Your task to perform on an android device: see sites visited before in the chrome app Image 0: 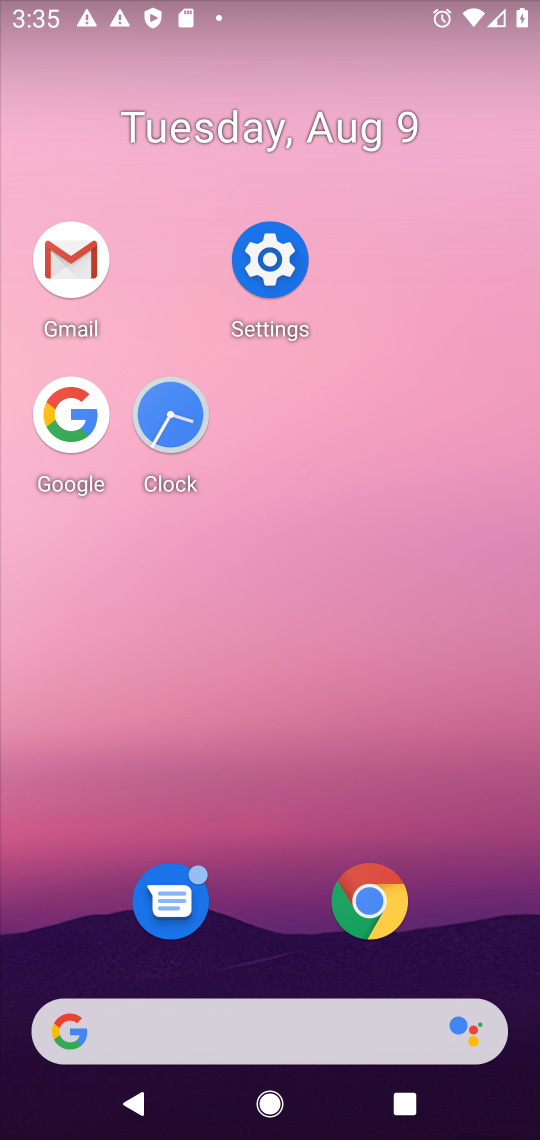
Step 0: click (363, 894)
Your task to perform on an android device: see sites visited before in the chrome app Image 1: 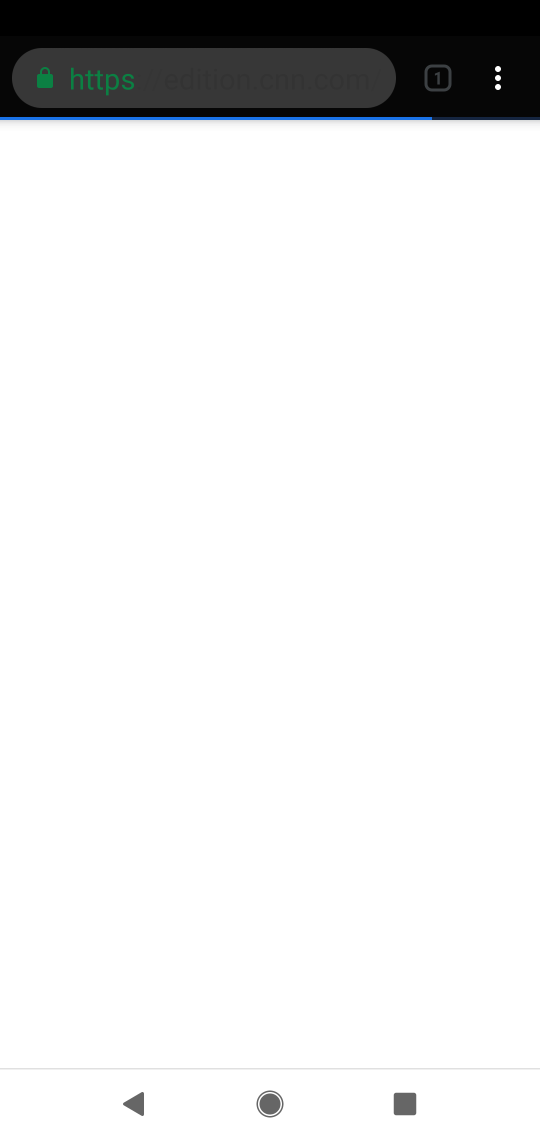
Step 1: click (490, 79)
Your task to perform on an android device: see sites visited before in the chrome app Image 2: 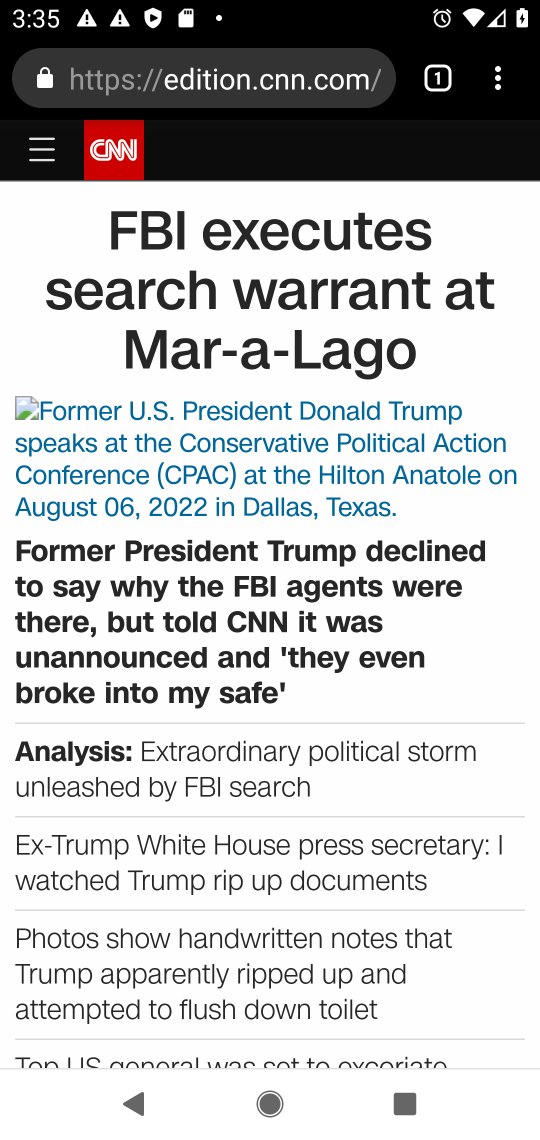
Step 2: click (493, 103)
Your task to perform on an android device: see sites visited before in the chrome app Image 3: 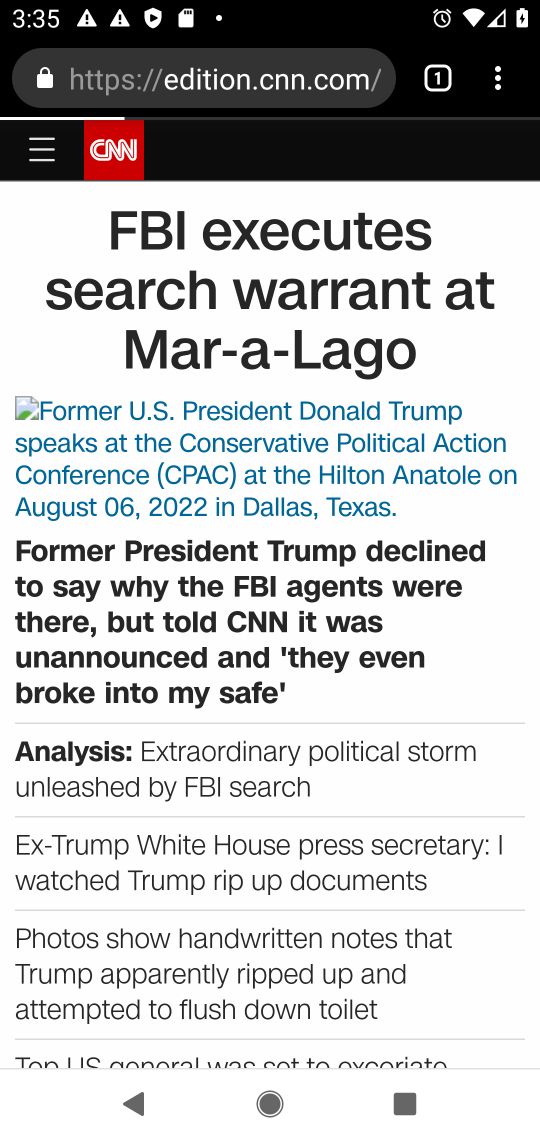
Step 3: click (504, 73)
Your task to perform on an android device: see sites visited before in the chrome app Image 4: 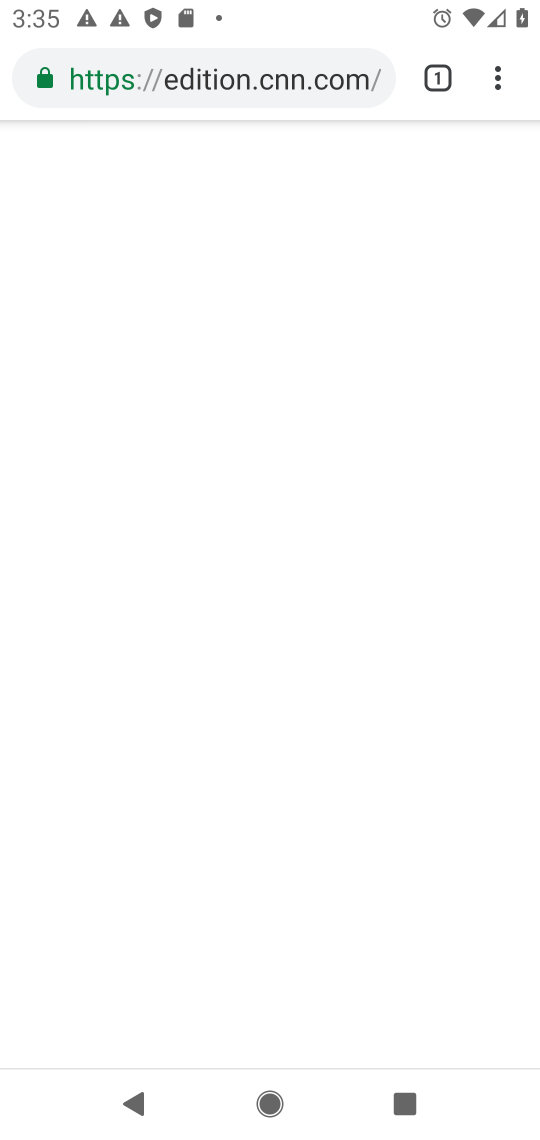
Step 4: click (504, 72)
Your task to perform on an android device: see sites visited before in the chrome app Image 5: 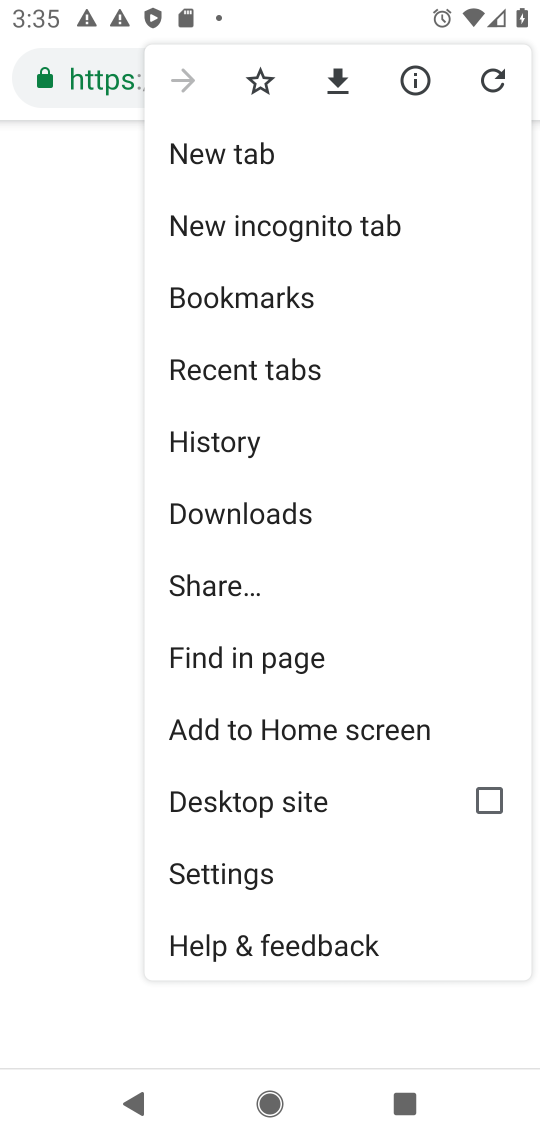
Step 5: click (307, 366)
Your task to perform on an android device: see sites visited before in the chrome app Image 6: 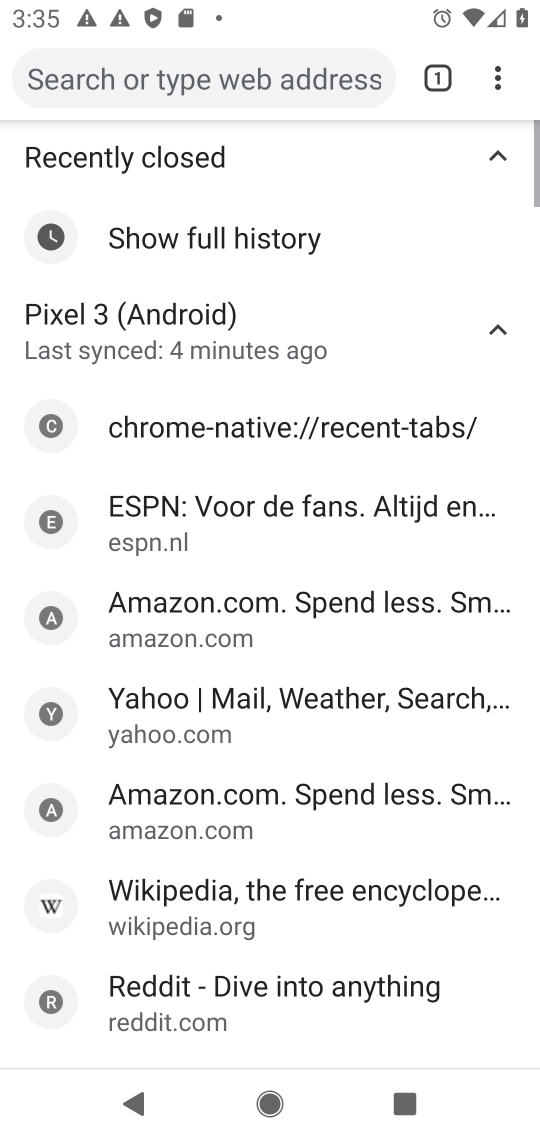
Step 6: task complete